Your task to perform on an android device: Open settings on Google Maps Image 0: 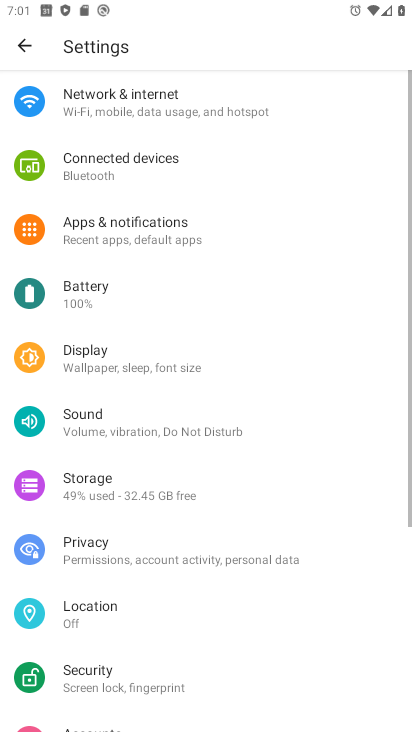
Step 0: press home button
Your task to perform on an android device: Open settings on Google Maps Image 1: 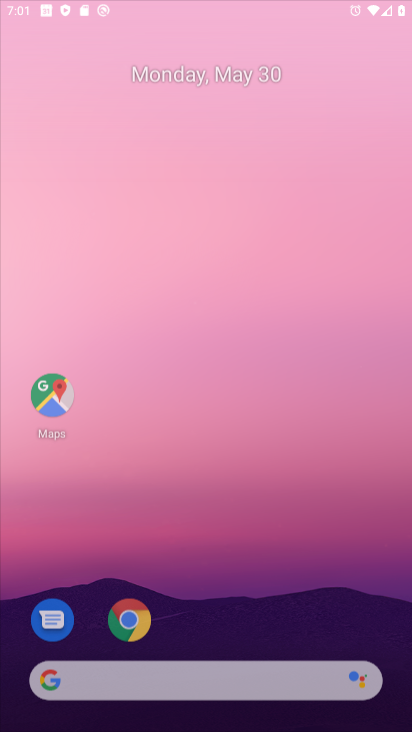
Step 1: drag from (353, 637) to (282, 40)
Your task to perform on an android device: Open settings on Google Maps Image 2: 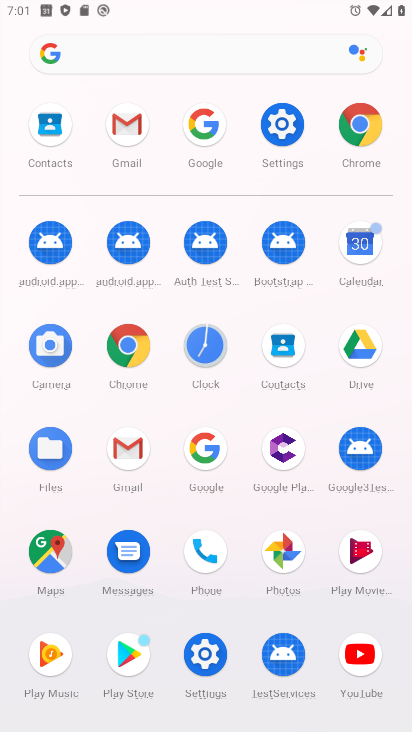
Step 2: click (61, 548)
Your task to perform on an android device: Open settings on Google Maps Image 3: 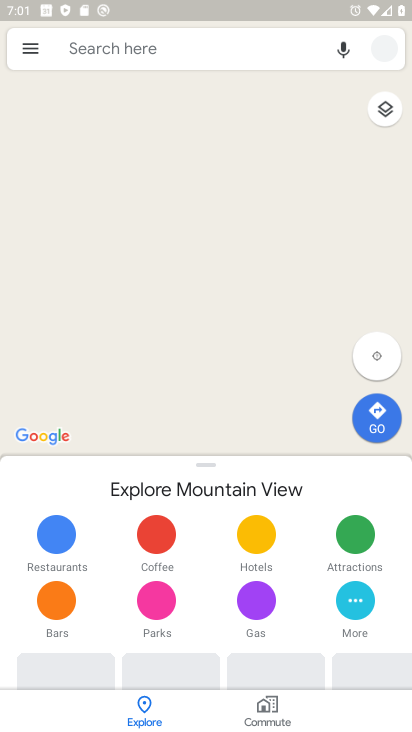
Step 3: click (32, 52)
Your task to perform on an android device: Open settings on Google Maps Image 4: 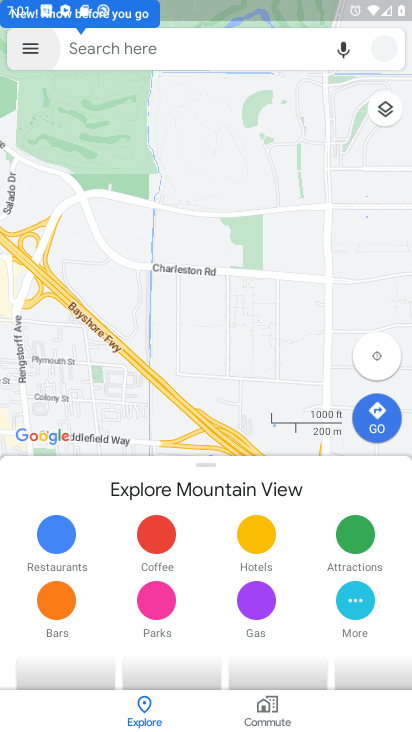
Step 4: click (35, 48)
Your task to perform on an android device: Open settings on Google Maps Image 5: 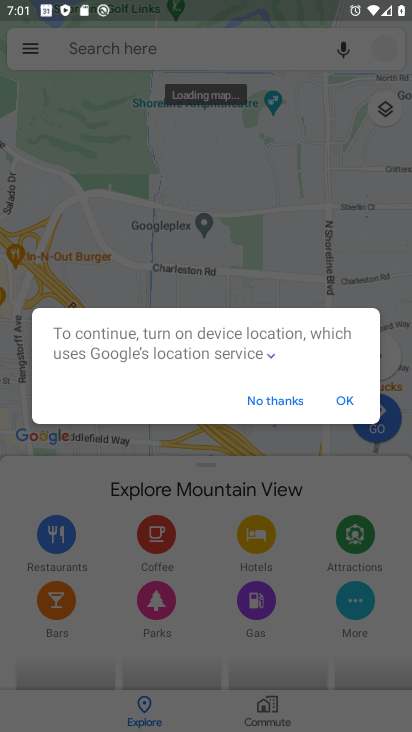
Step 5: click (265, 393)
Your task to perform on an android device: Open settings on Google Maps Image 6: 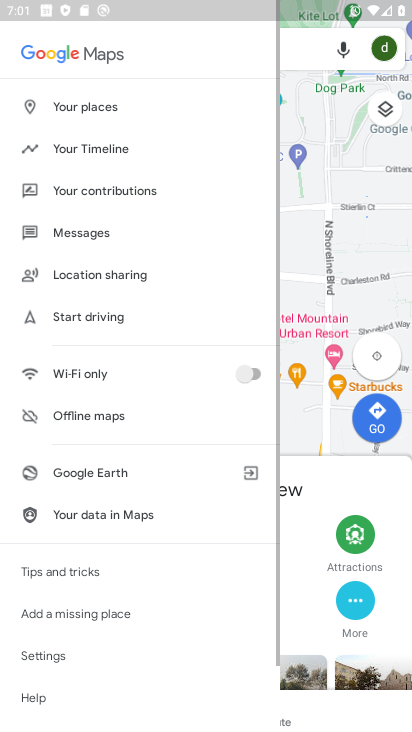
Step 6: click (29, 48)
Your task to perform on an android device: Open settings on Google Maps Image 7: 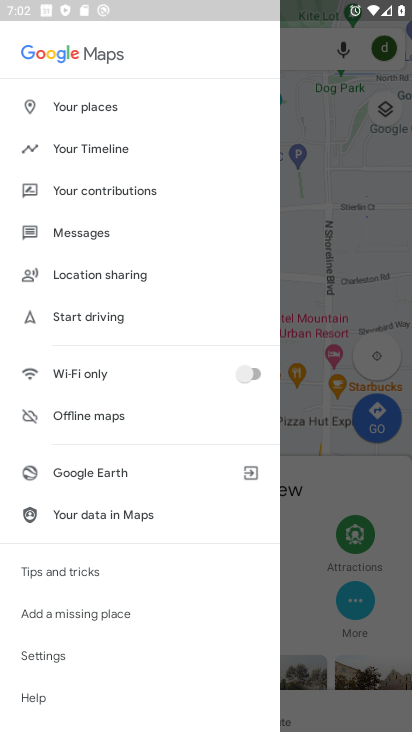
Step 7: click (52, 655)
Your task to perform on an android device: Open settings on Google Maps Image 8: 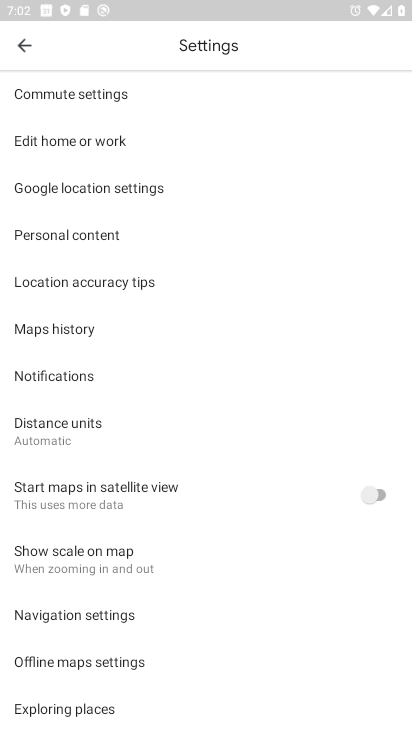
Step 8: task complete